Your task to perform on an android device: stop showing notifications on the lock screen Image 0: 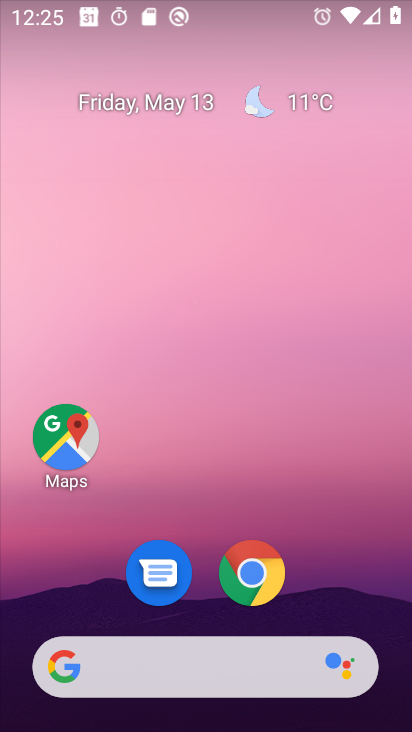
Step 0: drag from (396, 686) to (380, 315)
Your task to perform on an android device: stop showing notifications on the lock screen Image 1: 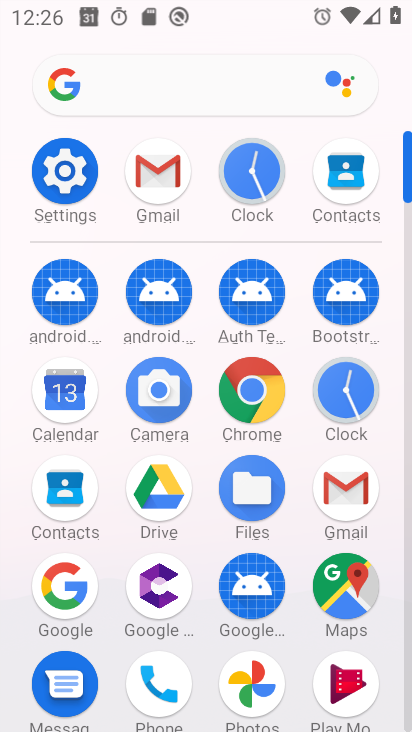
Step 1: click (67, 164)
Your task to perform on an android device: stop showing notifications on the lock screen Image 2: 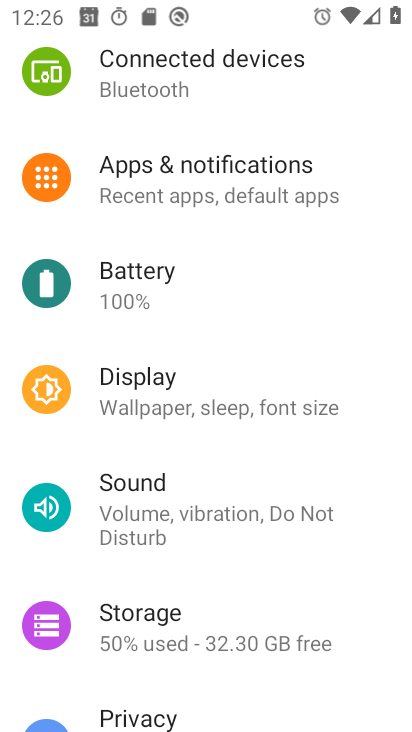
Step 2: drag from (277, 695) to (277, 317)
Your task to perform on an android device: stop showing notifications on the lock screen Image 3: 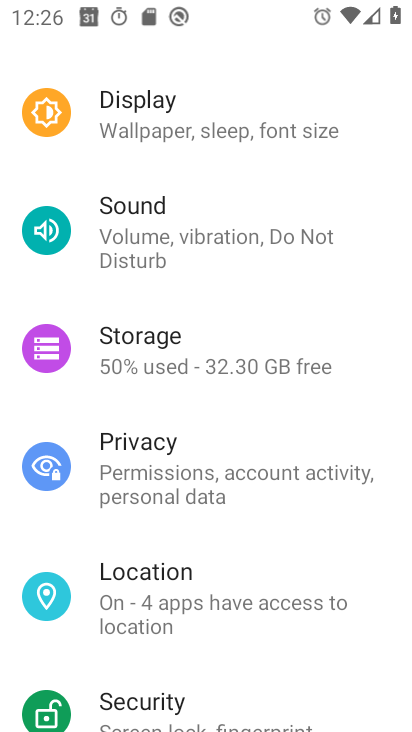
Step 3: drag from (252, 109) to (252, 315)
Your task to perform on an android device: stop showing notifications on the lock screen Image 4: 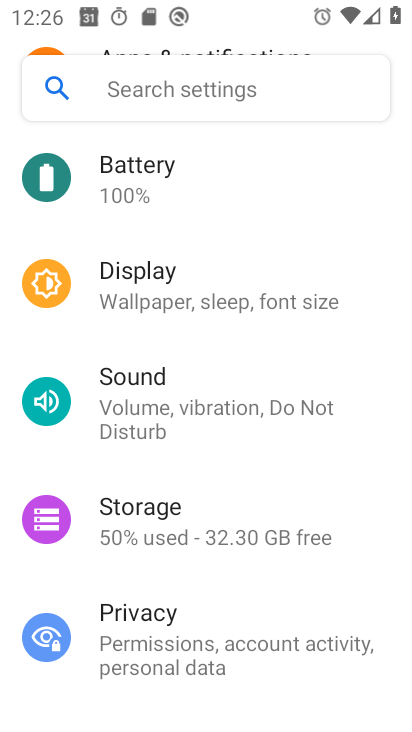
Step 4: drag from (236, 220) to (249, 424)
Your task to perform on an android device: stop showing notifications on the lock screen Image 5: 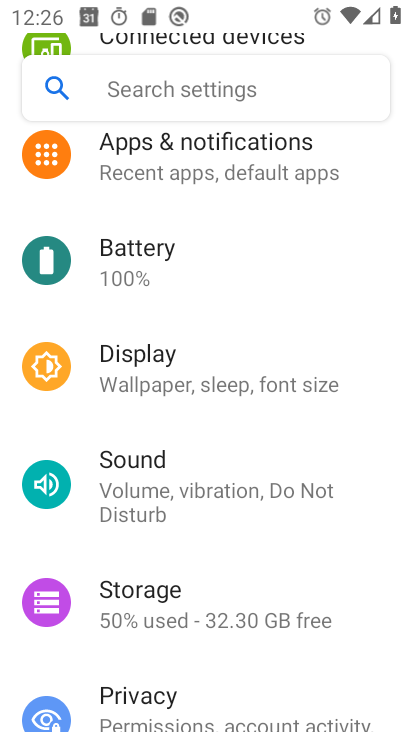
Step 5: click (203, 152)
Your task to perform on an android device: stop showing notifications on the lock screen Image 6: 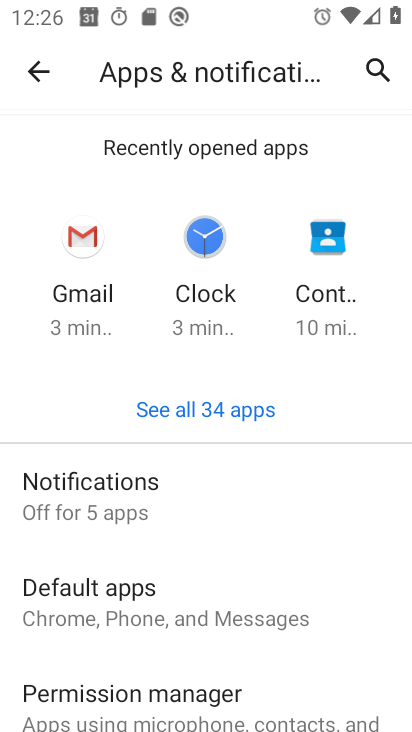
Step 6: drag from (309, 647) to (291, 408)
Your task to perform on an android device: stop showing notifications on the lock screen Image 7: 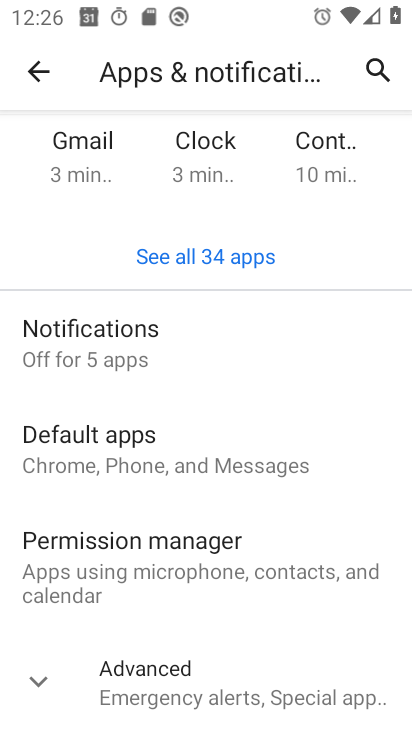
Step 7: click (81, 328)
Your task to perform on an android device: stop showing notifications on the lock screen Image 8: 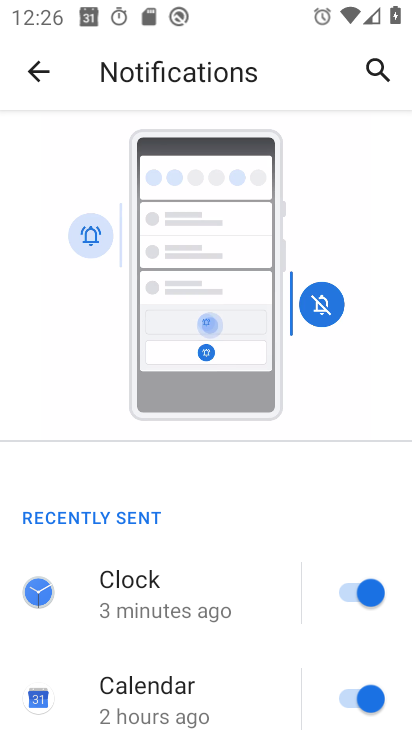
Step 8: drag from (264, 693) to (252, 439)
Your task to perform on an android device: stop showing notifications on the lock screen Image 9: 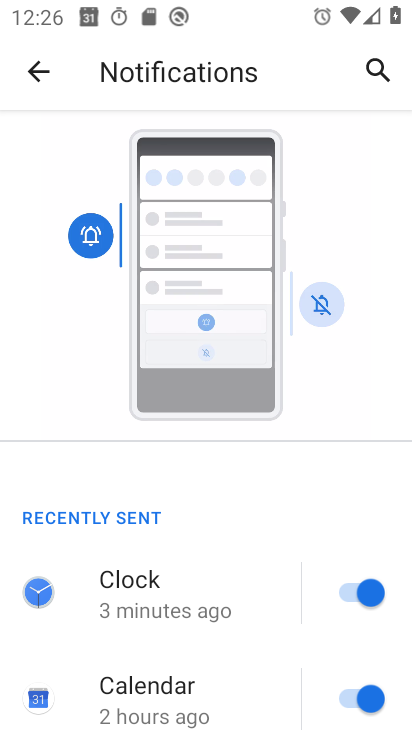
Step 9: drag from (258, 706) to (240, 402)
Your task to perform on an android device: stop showing notifications on the lock screen Image 10: 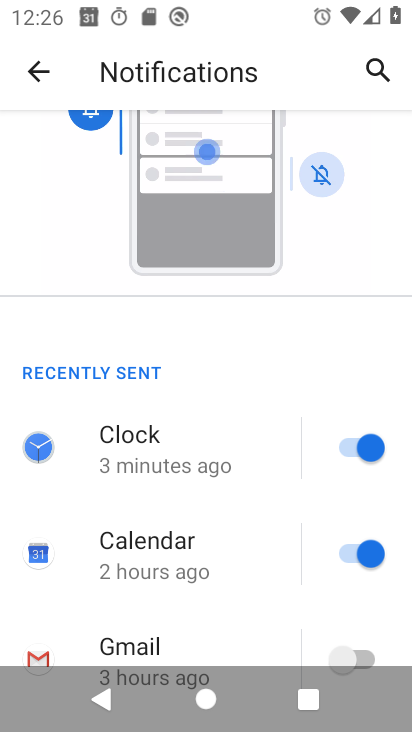
Step 10: drag from (260, 539) to (232, 274)
Your task to perform on an android device: stop showing notifications on the lock screen Image 11: 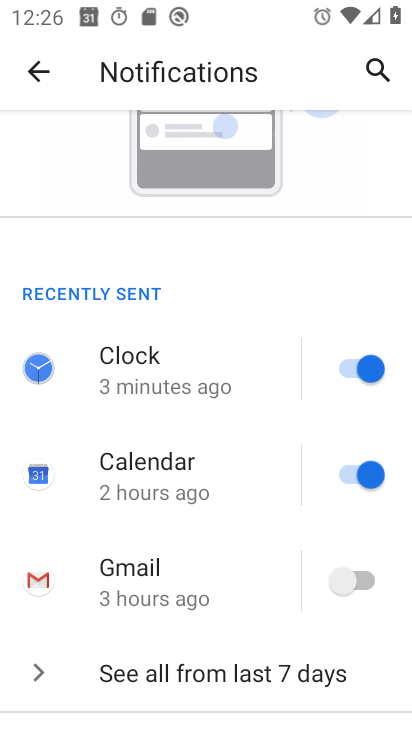
Step 11: drag from (265, 622) to (253, 300)
Your task to perform on an android device: stop showing notifications on the lock screen Image 12: 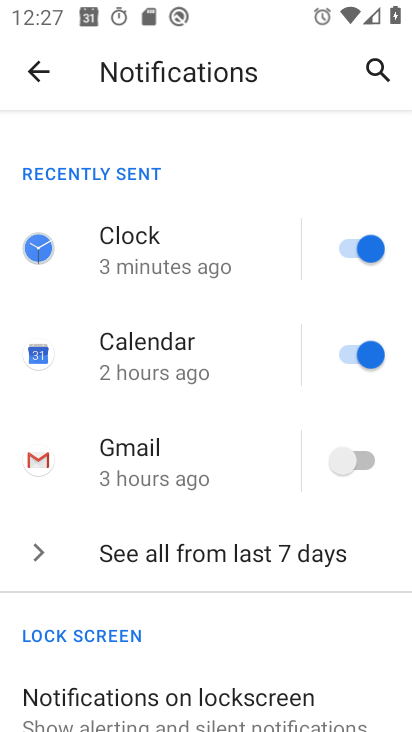
Step 12: drag from (257, 395) to (265, 260)
Your task to perform on an android device: stop showing notifications on the lock screen Image 13: 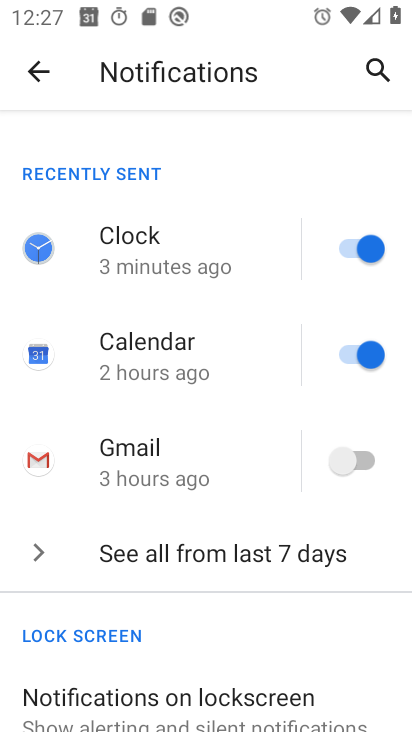
Step 13: drag from (256, 514) to (271, 287)
Your task to perform on an android device: stop showing notifications on the lock screen Image 14: 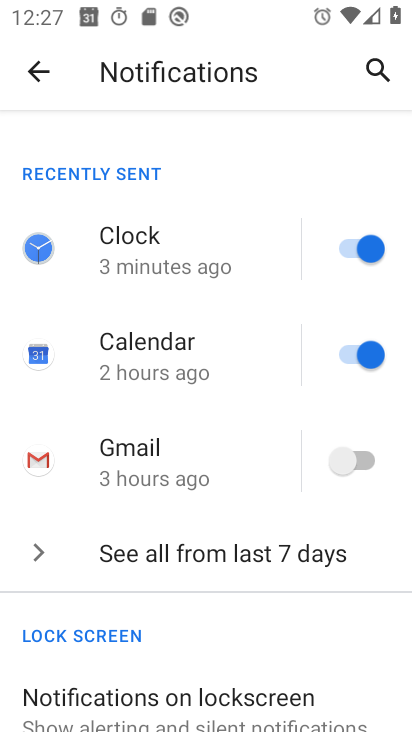
Step 14: drag from (256, 474) to (254, 203)
Your task to perform on an android device: stop showing notifications on the lock screen Image 15: 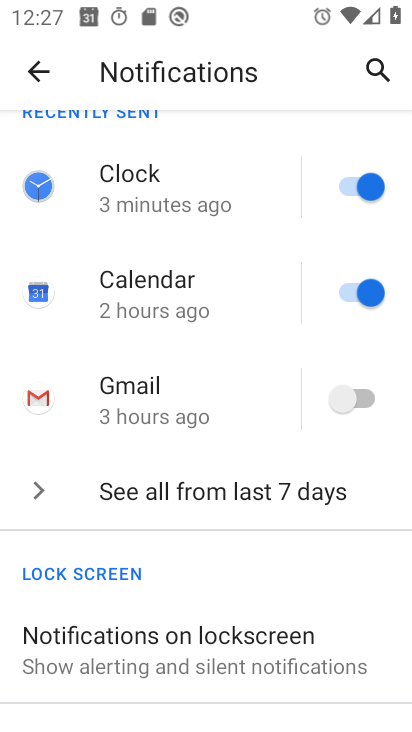
Step 15: drag from (278, 454) to (272, 259)
Your task to perform on an android device: stop showing notifications on the lock screen Image 16: 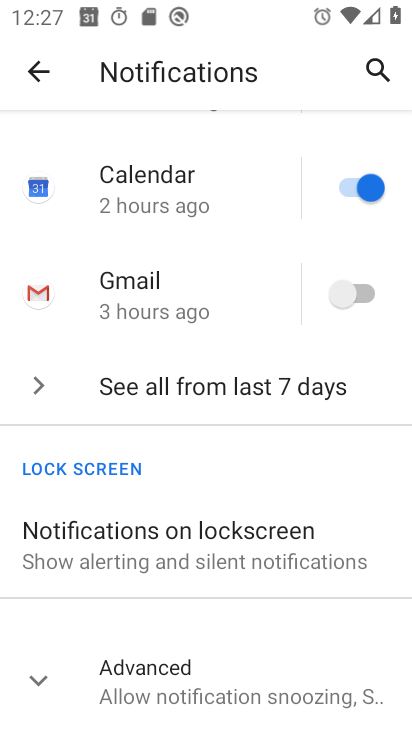
Step 16: drag from (258, 474) to (263, 220)
Your task to perform on an android device: stop showing notifications on the lock screen Image 17: 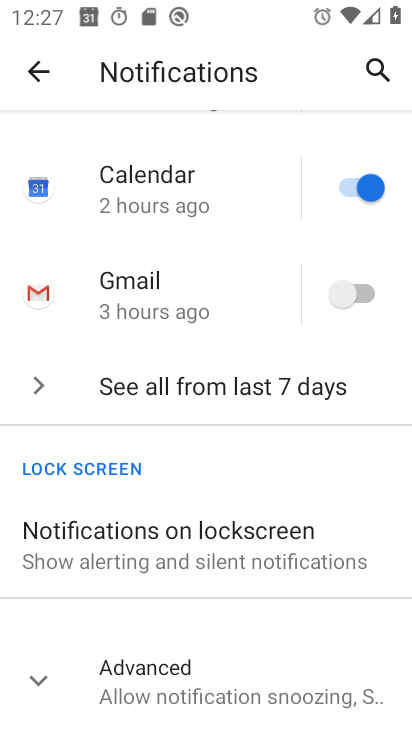
Step 17: click (142, 545)
Your task to perform on an android device: stop showing notifications on the lock screen Image 18: 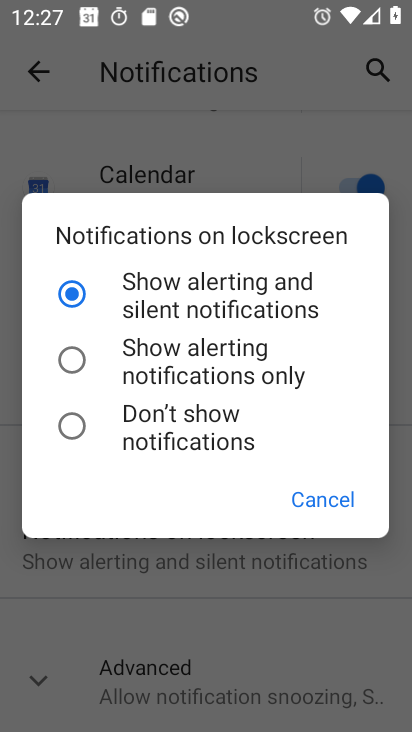
Step 18: click (73, 419)
Your task to perform on an android device: stop showing notifications on the lock screen Image 19: 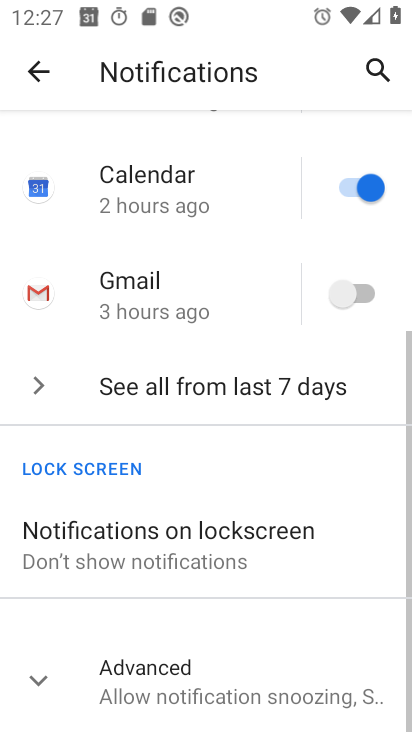
Step 19: task complete